Your task to perform on an android device: make emails show in primary in the gmail app Image 0: 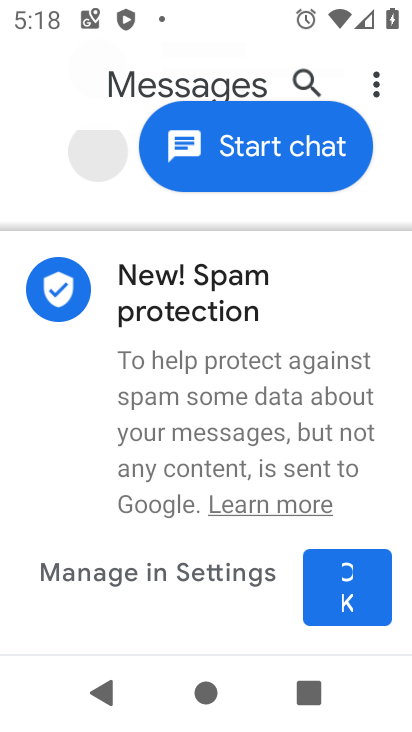
Step 0: press home button
Your task to perform on an android device: make emails show in primary in the gmail app Image 1: 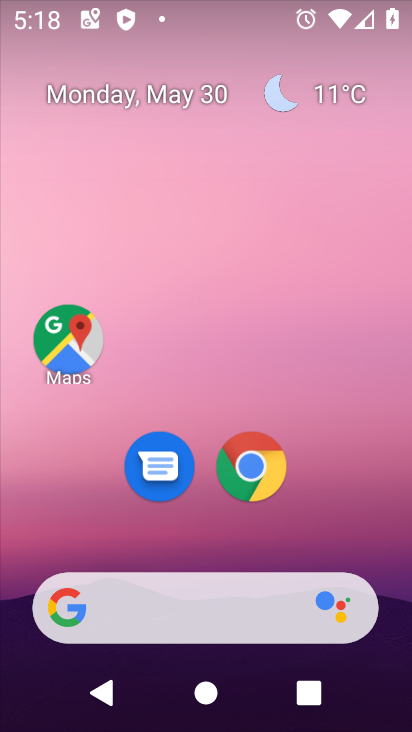
Step 1: drag from (313, 424) to (284, 100)
Your task to perform on an android device: make emails show in primary in the gmail app Image 2: 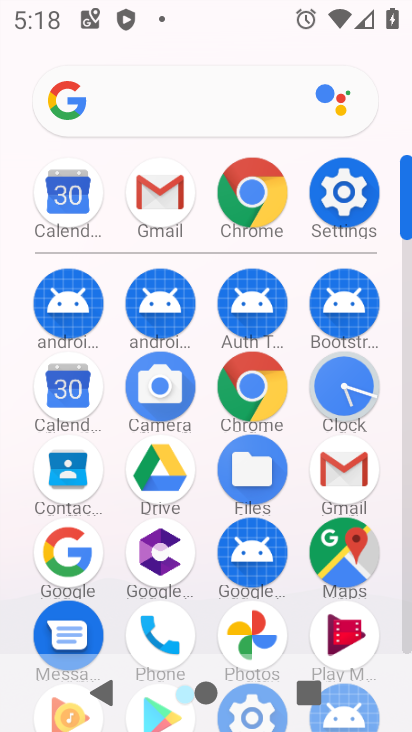
Step 2: click (341, 456)
Your task to perform on an android device: make emails show in primary in the gmail app Image 3: 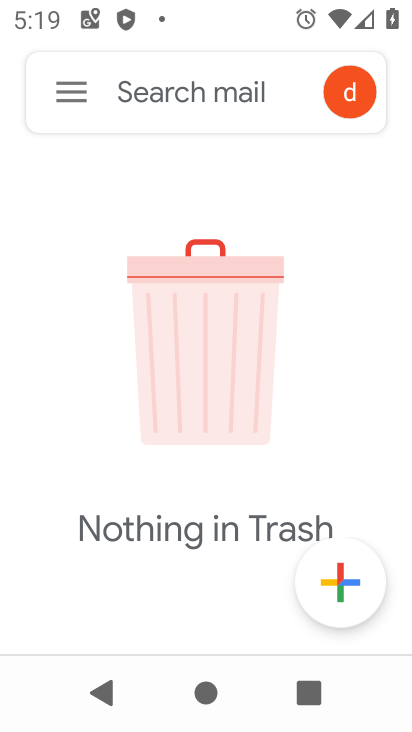
Step 3: click (75, 86)
Your task to perform on an android device: make emails show in primary in the gmail app Image 4: 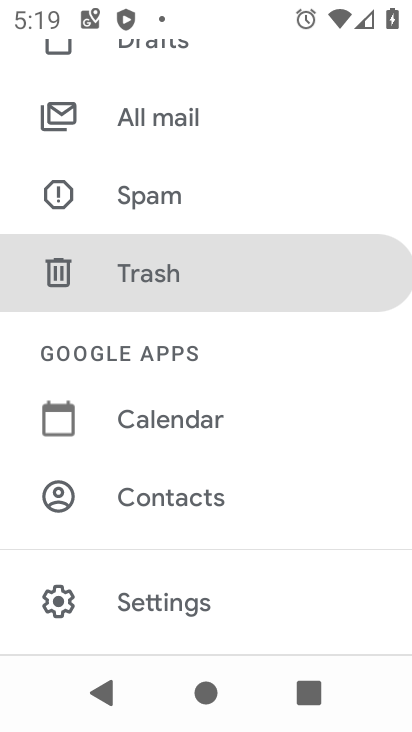
Step 4: drag from (185, 584) to (207, 721)
Your task to perform on an android device: make emails show in primary in the gmail app Image 5: 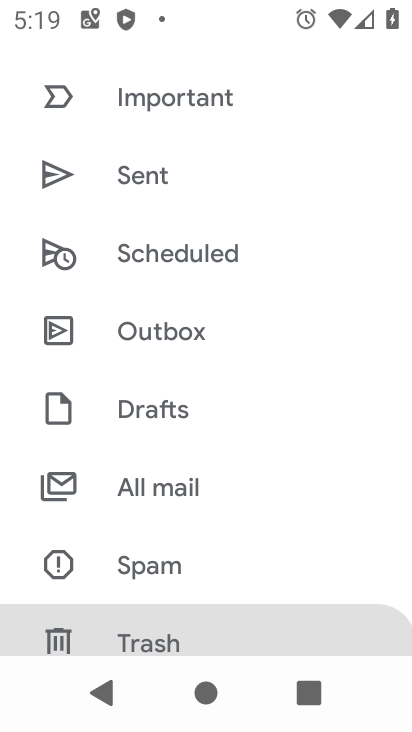
Step 5: drag from (164, 257) to (232, 731)
Your task to perform on an android device: make emails show in primary in the gmail app Image 6: 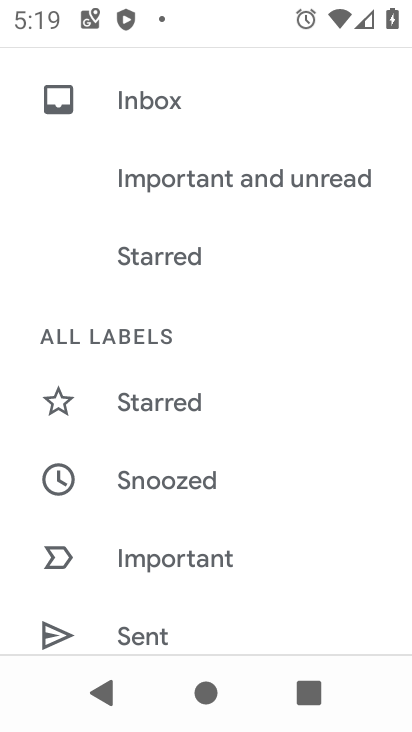
Step 6: drag from (174, 226) to (307, 41)
Your task to perform on an android device: make emails show in primary in the gmail app Image 7: 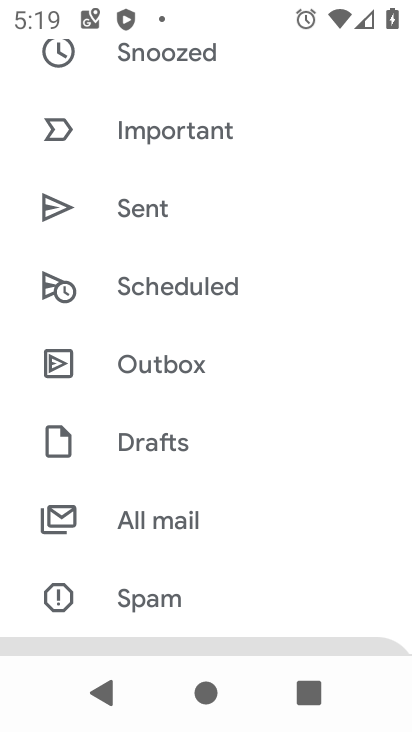
Step 7: drag from (179, 571) to (226, 83)
Your task to perform on an android device: make emails show in primary in the gmail app Image 8: 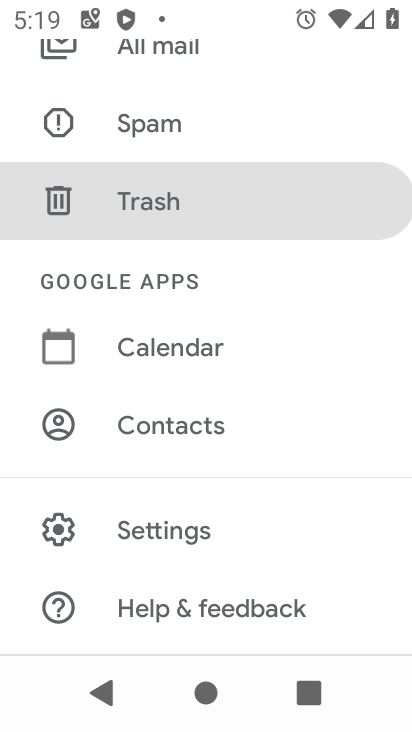
Step 8: click (182, 533)
Your task to perform on an android device: make emails show in primary in the gmail app Image 9: 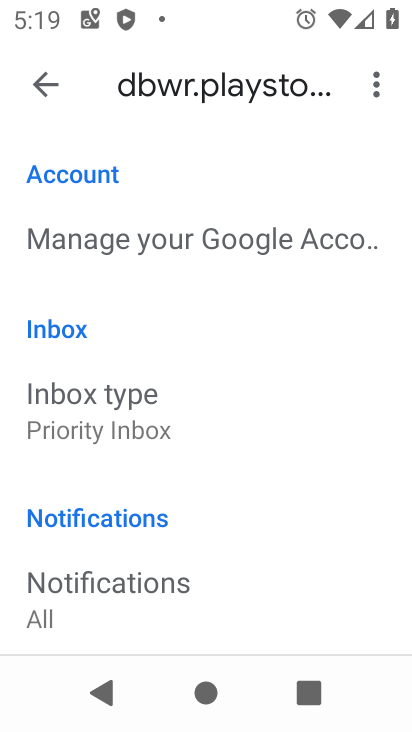
Step 9: click (134, 405)
Your task to perform on an android device: make emails show in primary in the gmail app Image 10: 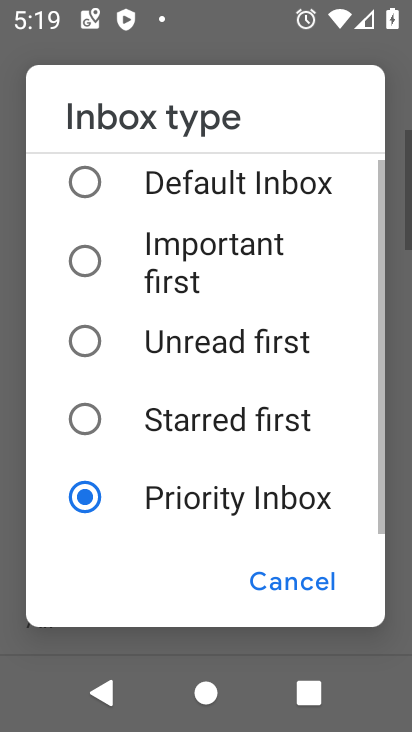
Step 10: click (162, 191)
Your task to perform on an android device: make emails show in primary in the gmail app Image 11: 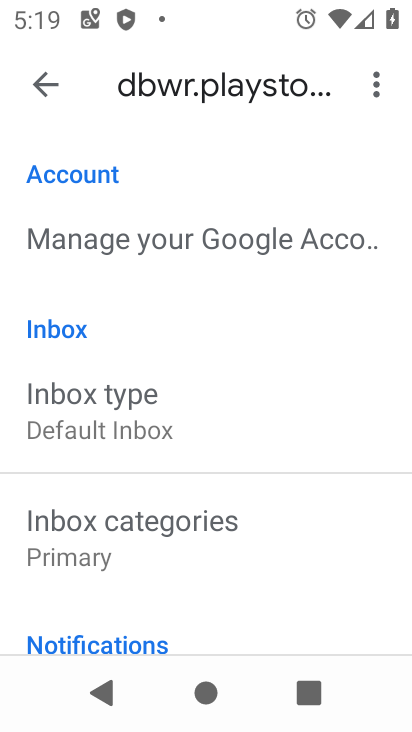
Step 11: click (164, 538)
Your task to perform on an android device: make emails show in primary in the gmail app Image 12: 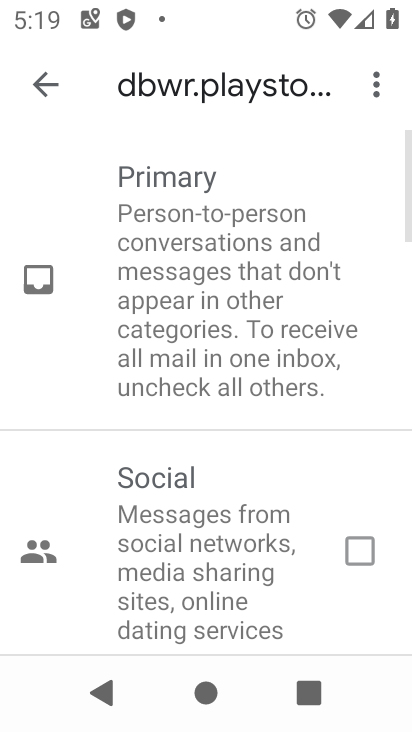
Step 12: task complete